Your task to perform on an android device: Search for sushi restaurants on Maps Image 0: 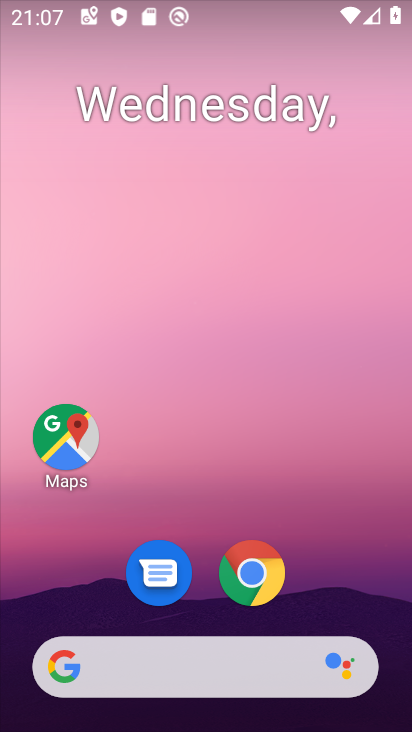
Step 0: click (68, 426)
Your task to perform on an android device: Search for sushi restaurants on Maps Image 1: 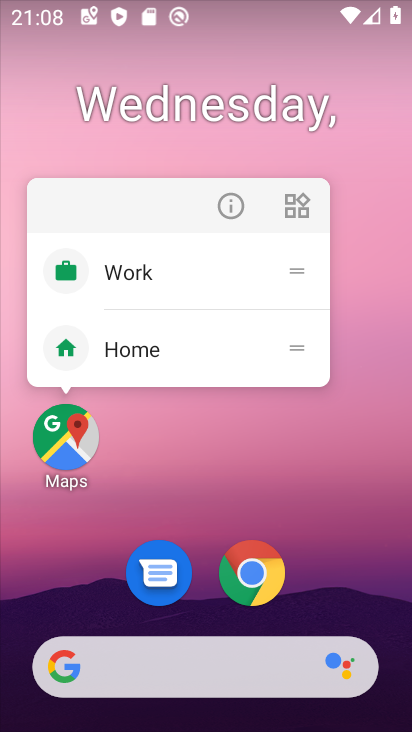
Step 1: click (60, 446)
Your task to perform on an android device: Search for sushi restaurants on Maps Image 2: 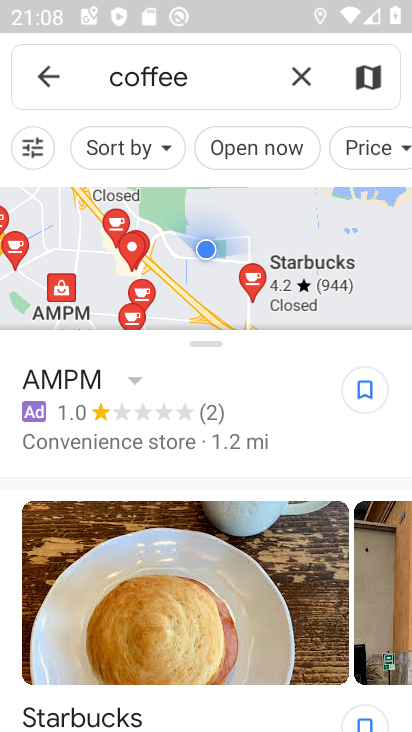
Step 2: click (302, 67)
Your task to perform on an android device: Search for sushi restaurants on Maps Image 3: 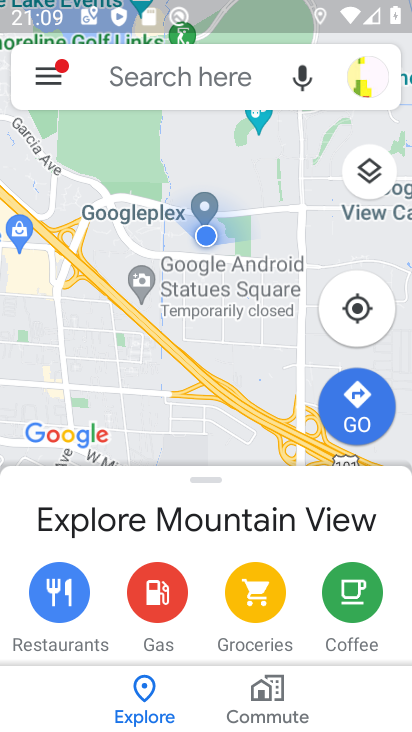
Step 3: click (215, 80)
Your task to perform on an android device: Search for sushi restaurants on Maps Image 4: 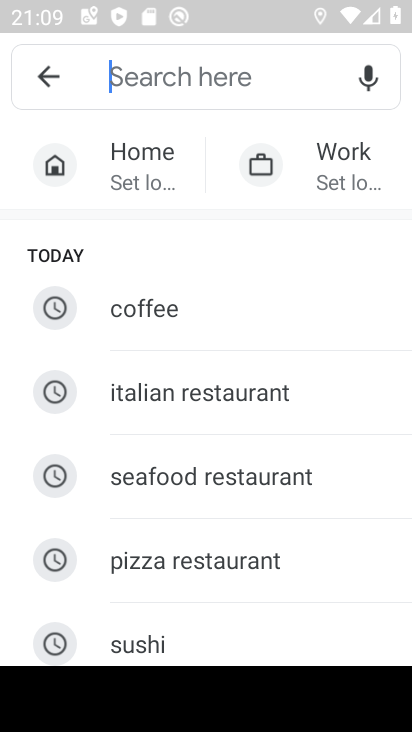
Step 4: type "sushi restaurants"
Your task to perform on an android device: Search for sushi restaurants on Maps Image 5: 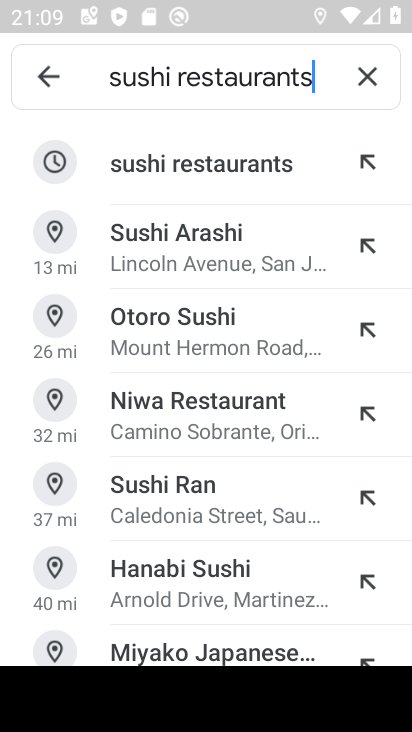
Step 5: click (222, 158)
Your task to perform on an android device: Search for sushi restaurants on Maps Image 6: 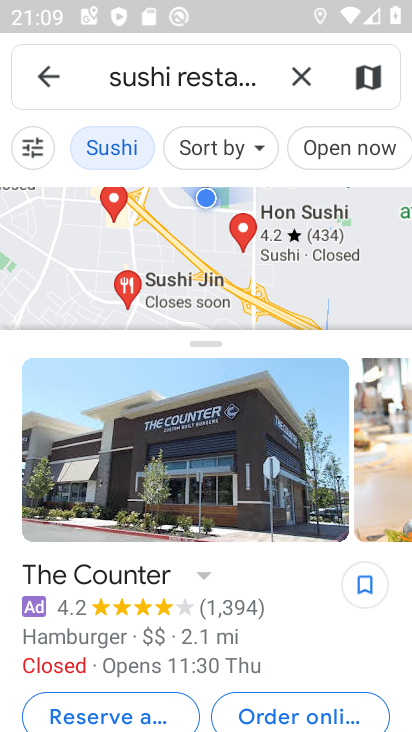
Step 6: task complete